Your task to perform on an android device: What's the weather going to be tomorrow? Image 0: 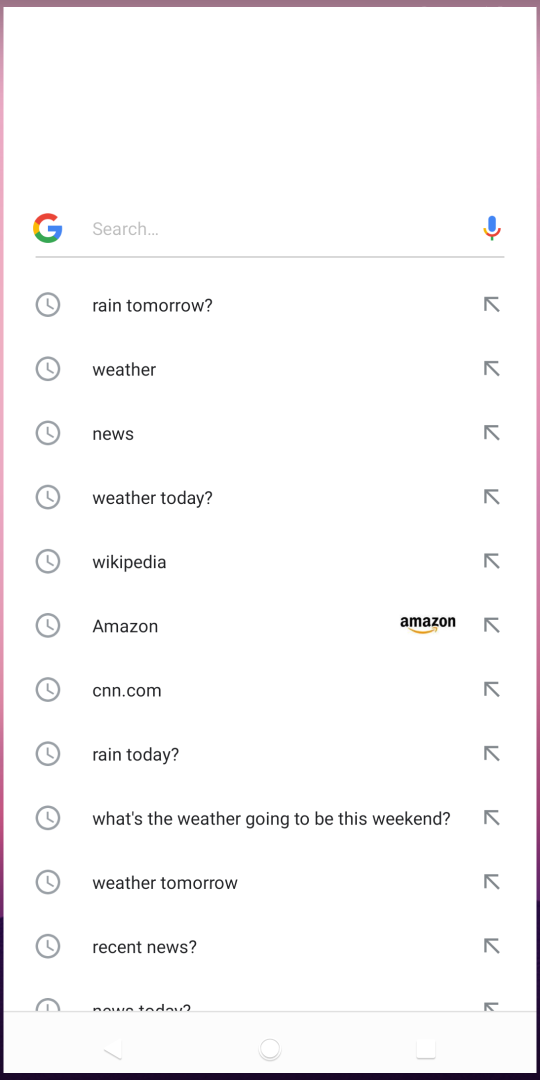
Step 0: press home button
Your task to perform on an android device: What's the weather going to be tomorrow? Image 1: 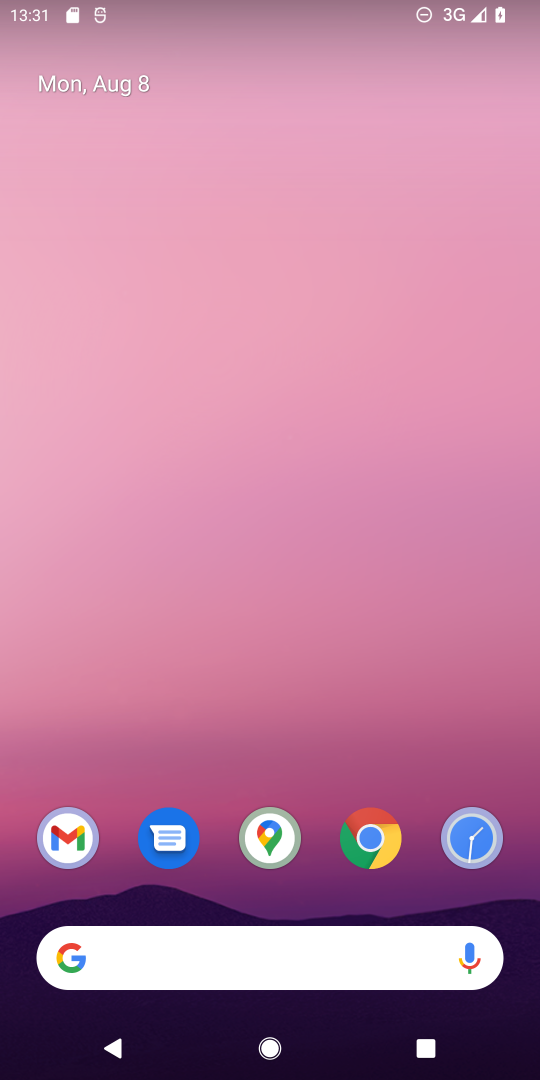
Step 1: click (57, 956)
Your task to perform on an android device: What's the weather going to be tomorrow? Image 2: 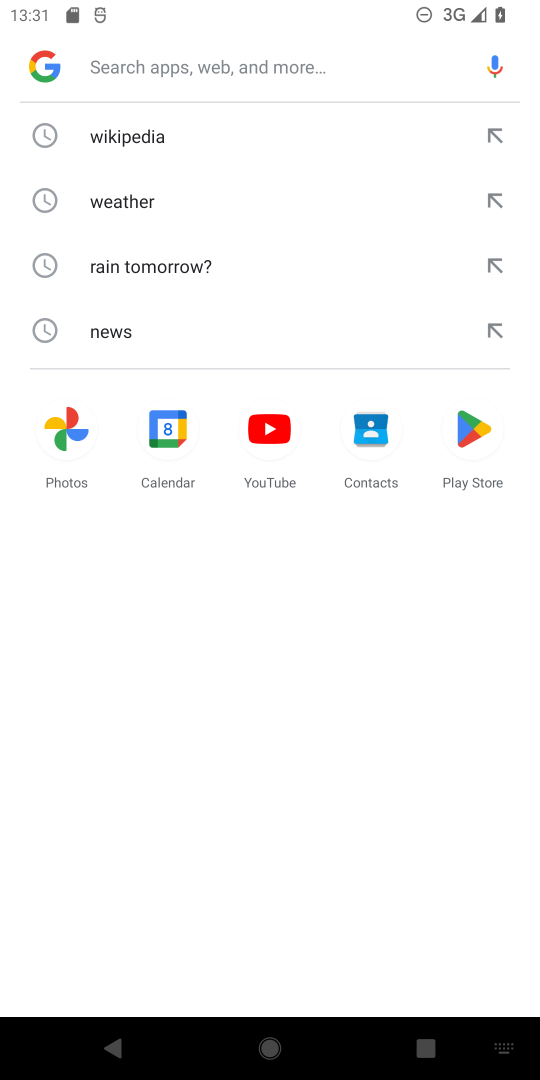
Step 2: type "weather going to be tomorrow?"
Your task to perform on an android device: What's the weather going to be tomorrow? Image 3: 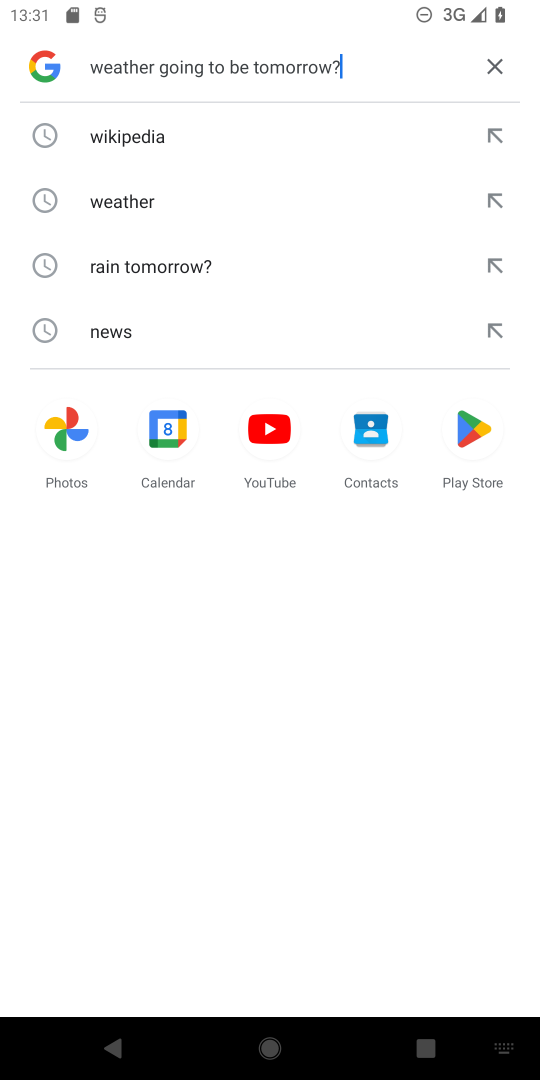
Step 3: press enter
Your task to perform on an android device: What's the weather going to be tomorrow? Image 4: 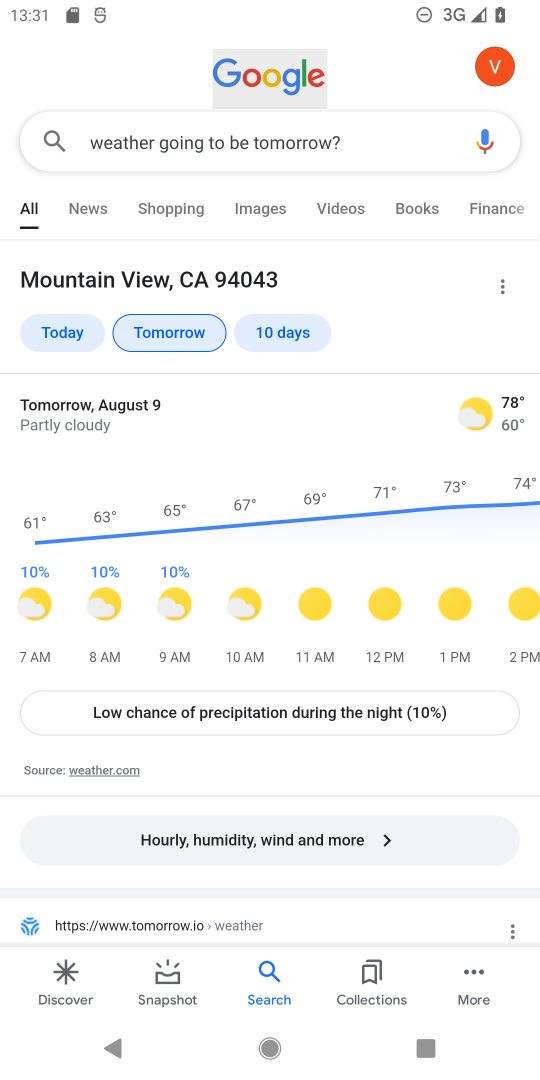
Step 4: task complete